Your task to perform on an android device: change notifications settings Image 0: 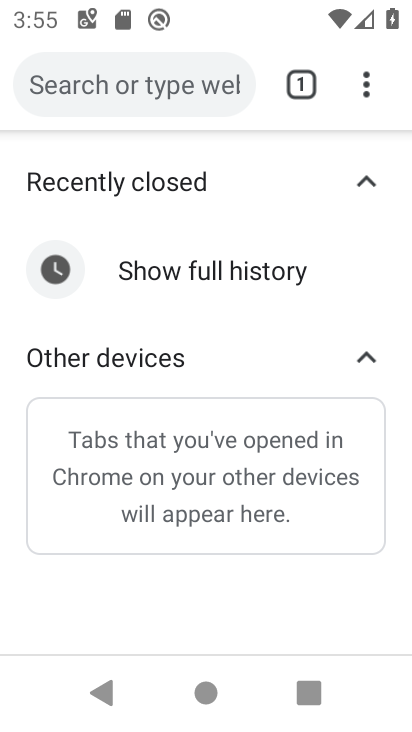
Step 0: press home button
Your task to perform on an android device: change notifications settings Image 1: 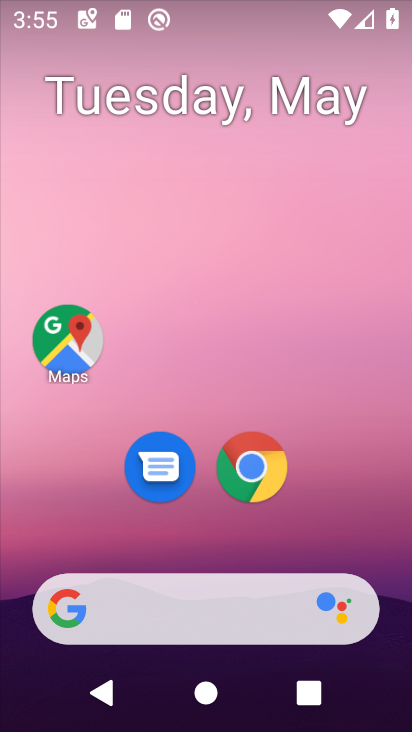
Step 1: drag from (269, 492) to (188, 321)
Your task to perform on an android device: change notifications settings Image 2: 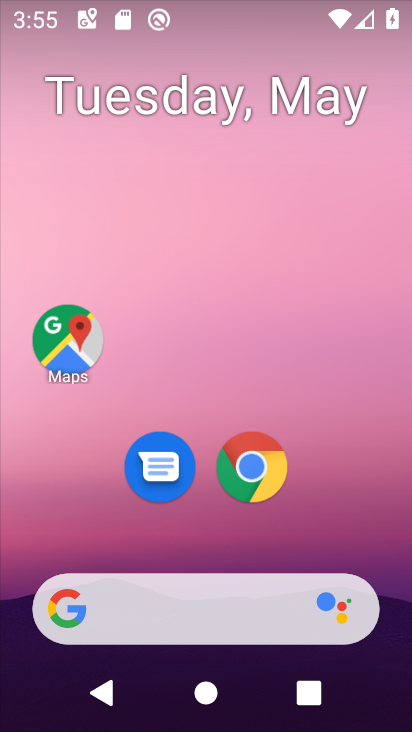
Step 2: drag from (266, 359) to (293, 3)
Your task to perform on an android device: change notifications settings Image 3: 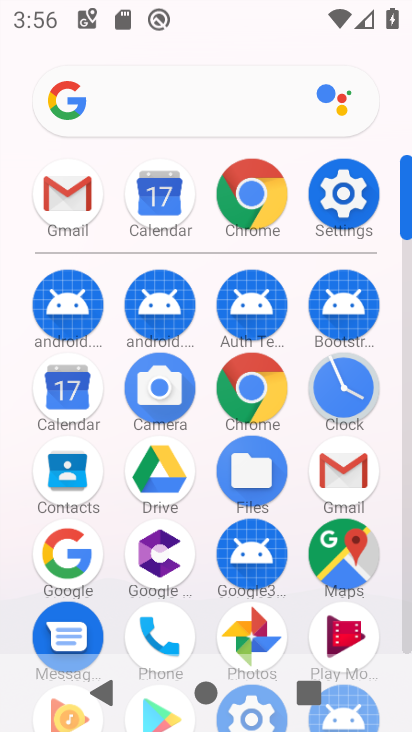
Step 3: click (344, 191)
Your task to perform on an android device: change notifications settings Image 4: 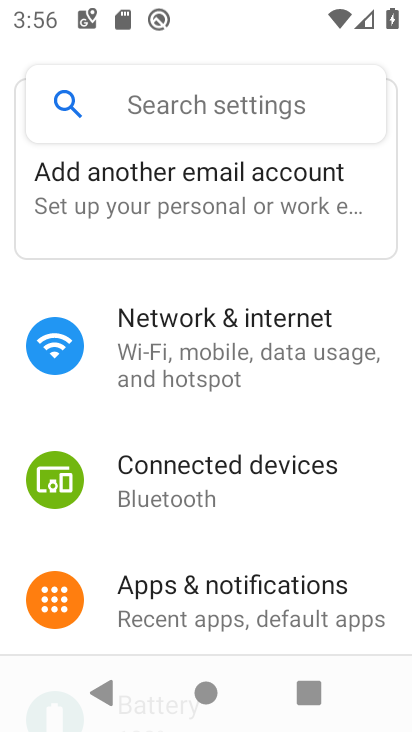
Step 4: click (234, 607)
Your task to perform on an android device: change notifications settings Image 5: 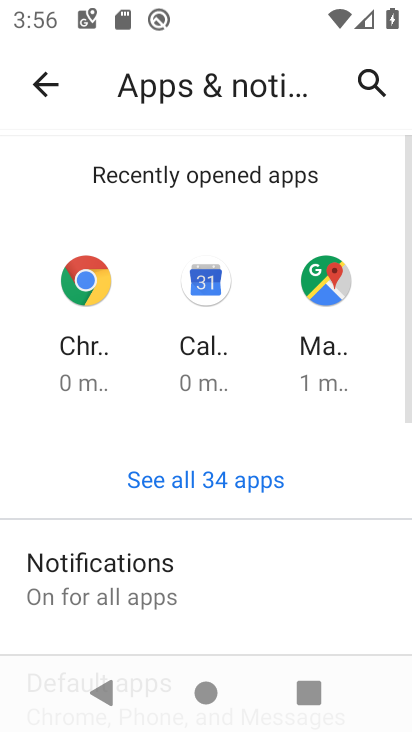
Step 5: click (149, 602)
Your task to perform on an android device: change notifications settings Image 6: 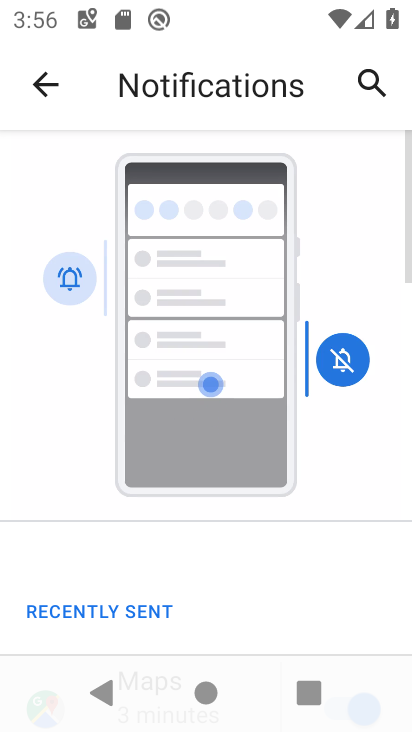
Step 6: drag from (188, 575) to (214, 104)
Your task to perform on an android device: change notifications settings Image 7: 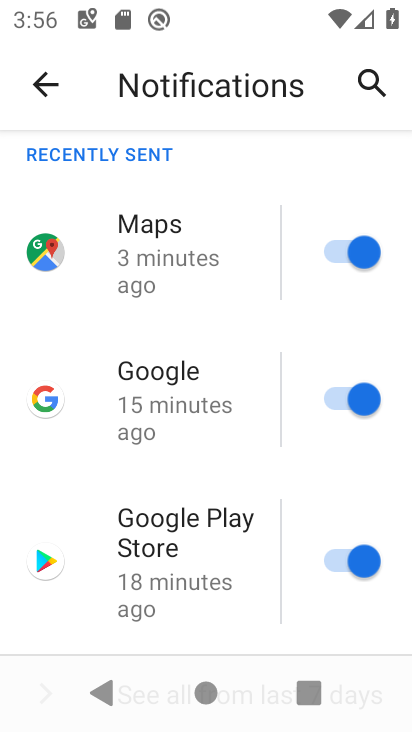
Step 7: drag from (142, 322) to (140, 182)
Your task to perform on an android device: change notifications settings Image 8: 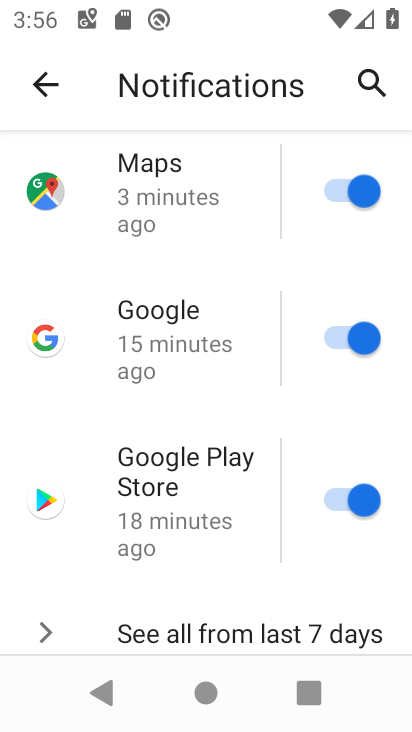
Step 8: click (234, 116)
Your task to perform on an android device: change notifications settings Image 9: 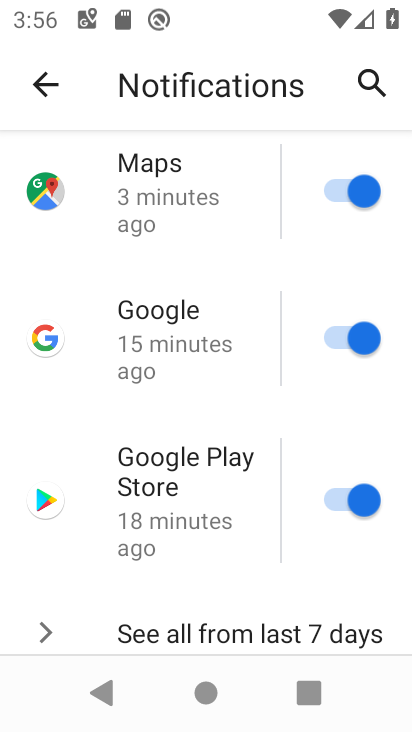
Step 9: drag from (165, 400) to (143, 232)
Your task to perform on an android device: change notifications settings Image 10: 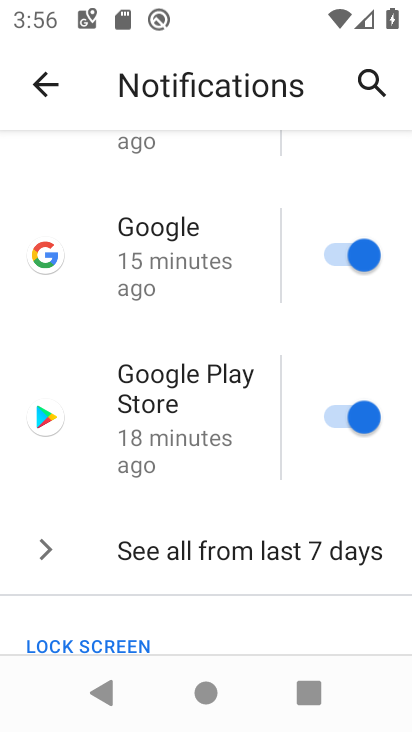
Step 10: click (198, 217)
Your task to perform on an android device: change notifications settings Image 11: 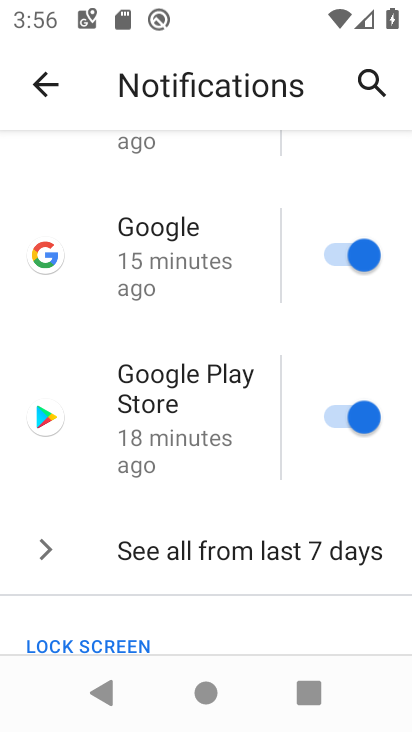
Step 11: drag from (204, 620) to (190, 238)
Your task to perform on an android device: change notifications settings Image 12: 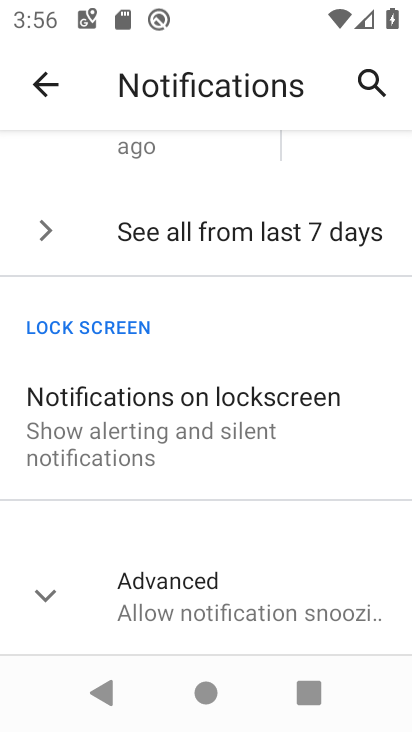
Step 12: click (108, 436)
Your task to perform on an android device: change notifications settings Image 13: 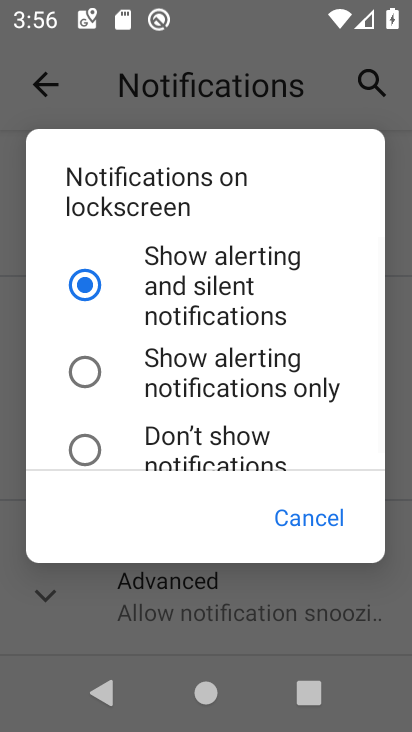
Step 13: click (99, 453)
Your task to perform on an android device: change notifications settings Image 14: 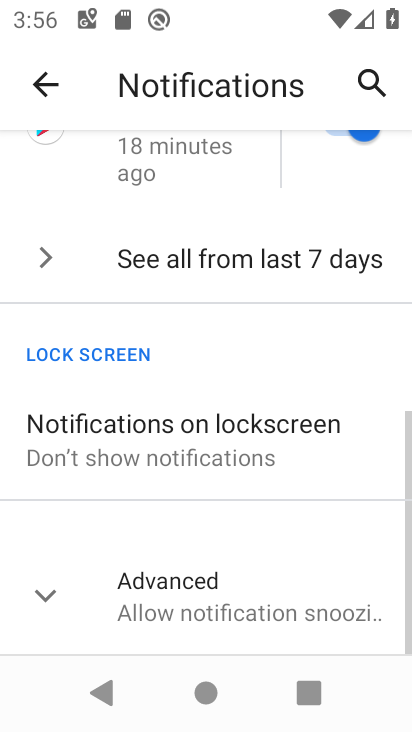
Step 14: task complete